Your task to perform on an android device: delete browsing data in the chrome app Image 0: 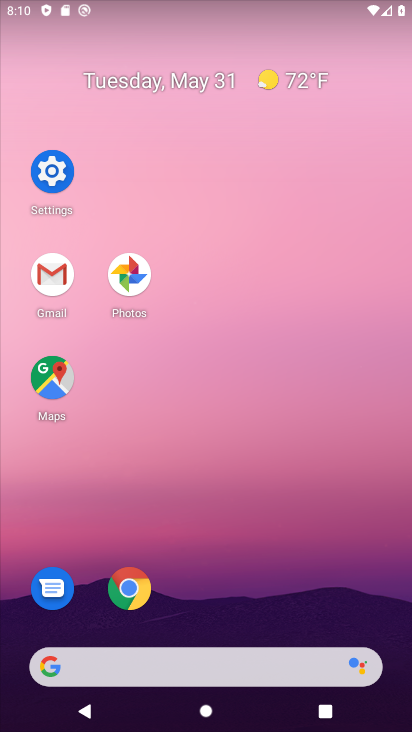
Step 0: click (138, 589)
Your task to perform on an android device: delete browsing data in the chrome app Image 1: 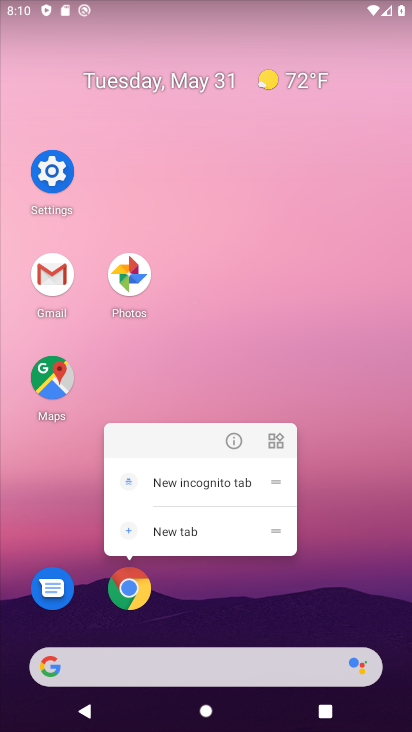
Step 1: click (120, 612)
Your task to perform on an android device: delete browsing data in the chrome app Image 2: 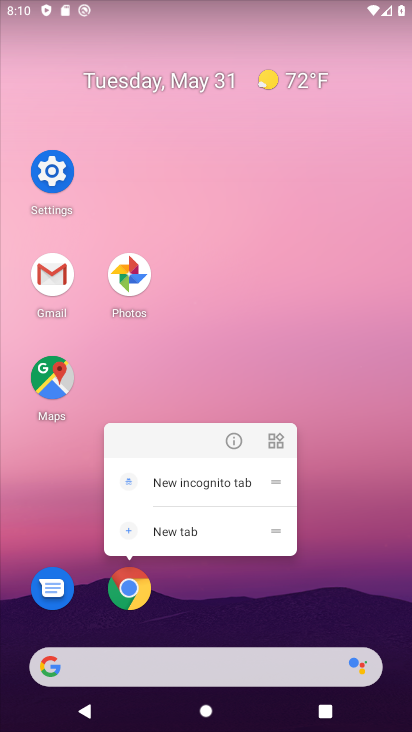
Step 2: click (124, 605)
Your task to perform on an android device: delete browsing data in the chrome app Image 3: 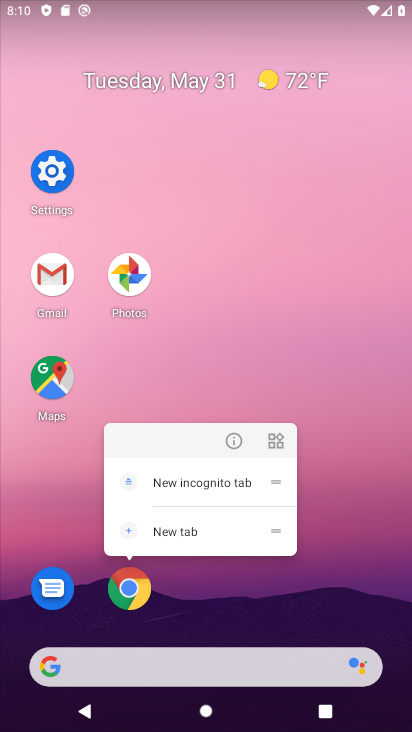
Step 3: click (124, 605)
Your task to perform on an android device: delete browsing data in the chrome app Image 4: 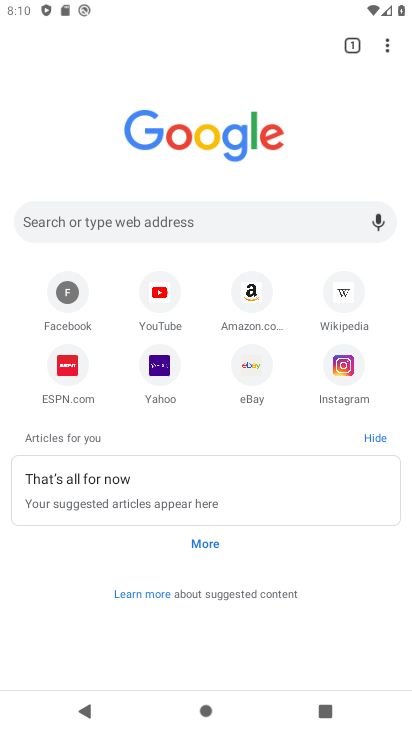
Step 4: click (393, 42)
Your task to perform on an android device: delete browsing data in the chrome app Image 5: 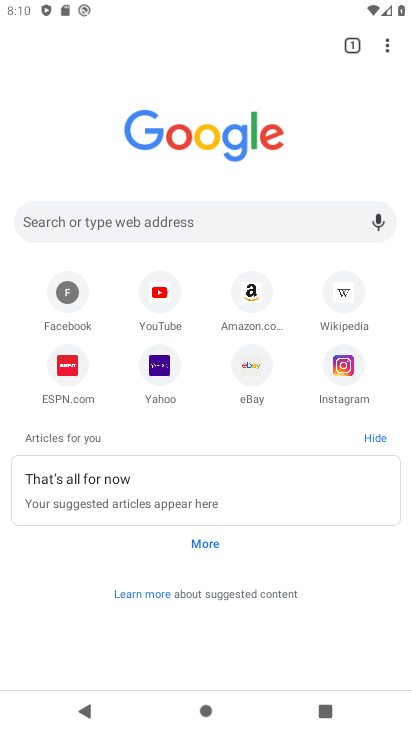
Step 5: click (379, 56)
Your task to perform on an android device: delete browsing data in the chrome app Image 6: 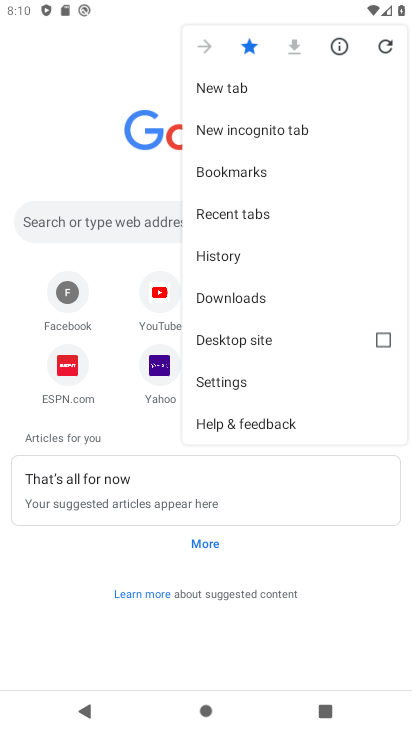
Step 6: drag from (258, 326) to (291, 159)
Your task to perform on an android device: delete browsing data in the chrome app Image 7: 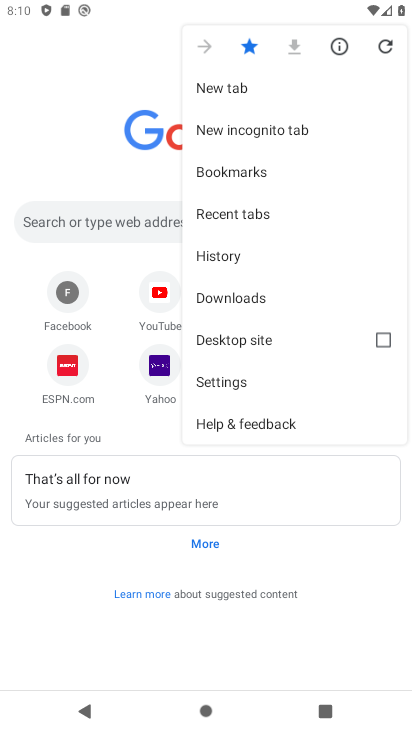
Step 7: click (231, 382)
Your task to perform on an android device: delete browsing data in the chrome app Image 8: 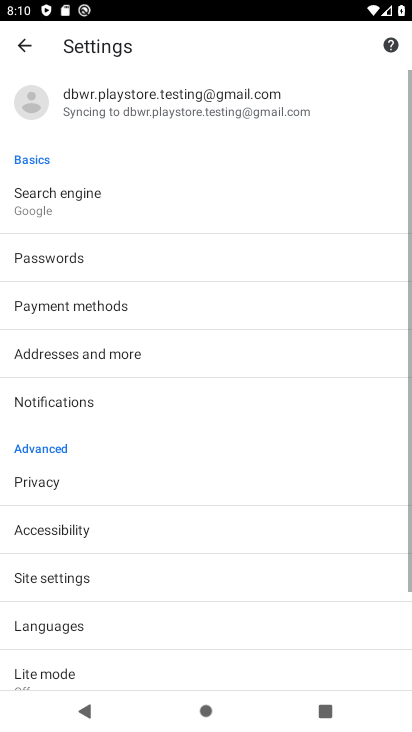
Step 8: drag from (165, 556) to (229, 255)
Your task to perform on an android device: delete browsing data in the chrome app Image 9: 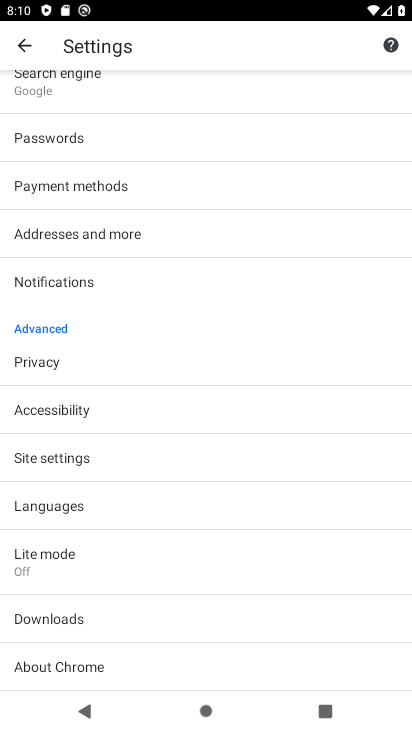
Step 9: click (139, 366)
Your task to perform on an android device: delete browsing data in the chrome app Image 10: 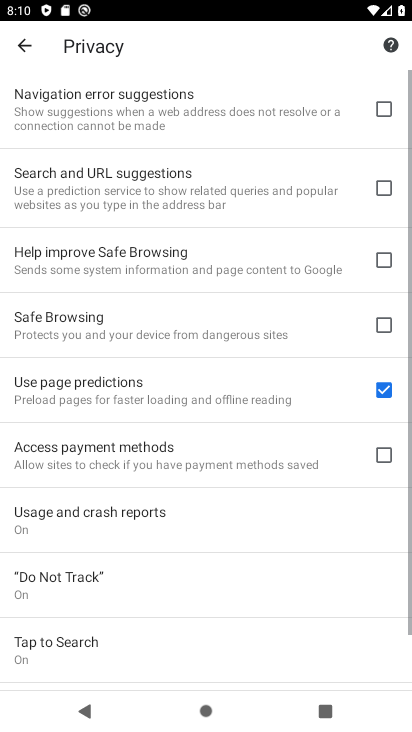
Step 10: drag from (139, 366) to (273, 152)
Your task to perform on an android device: delete browsing data in the chrome app Image 11: 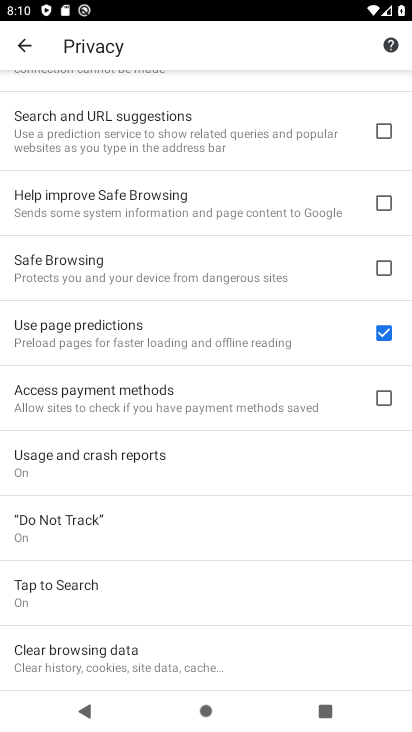
Step 11: click (166, 650)
Your task to perform on an android device: delete browsing data in the chrome app Image 12: 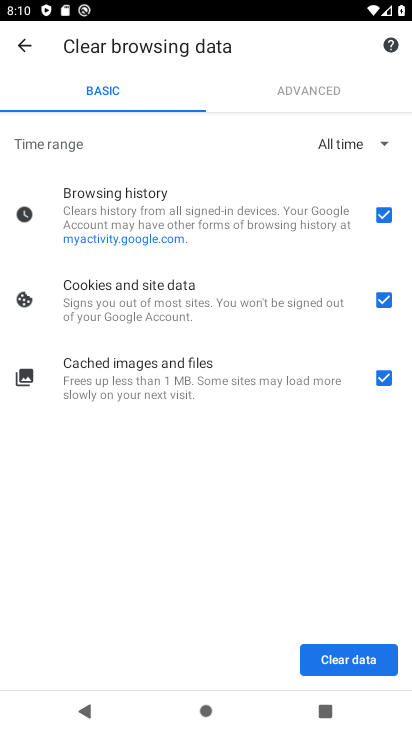
Step 12: click (328, 664)
Your task to perform on an android device: delete browsing data in the chrome app Image 13: 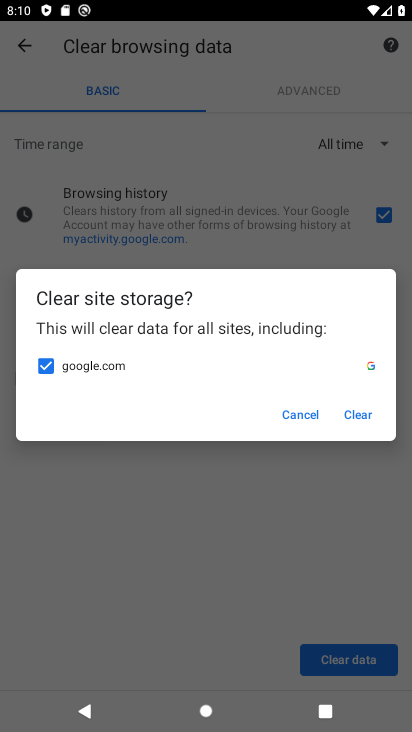
Step 13: click (364, 415)
Your task to perform on an android device: delete browsing data in the chrome app Image 14: 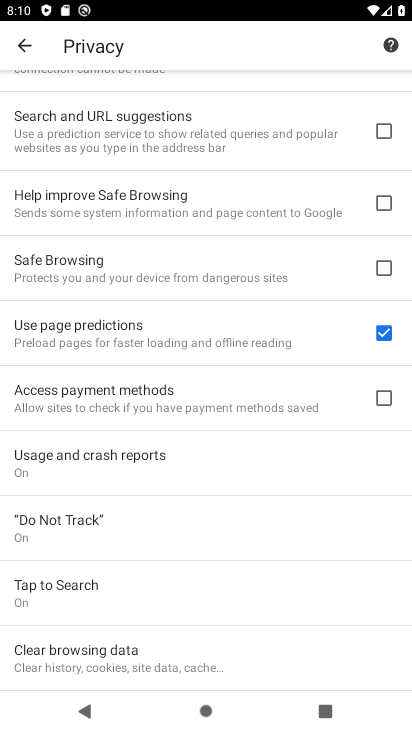
Step 14: task complete